Your task to perform on an android device: turn notification dots off Image 0: 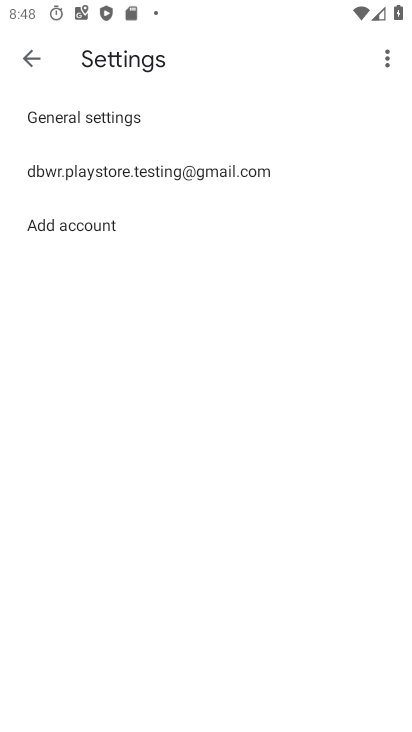
Step 0: press back button
Your task to perform on an android device: turn notification dots off Image 1: 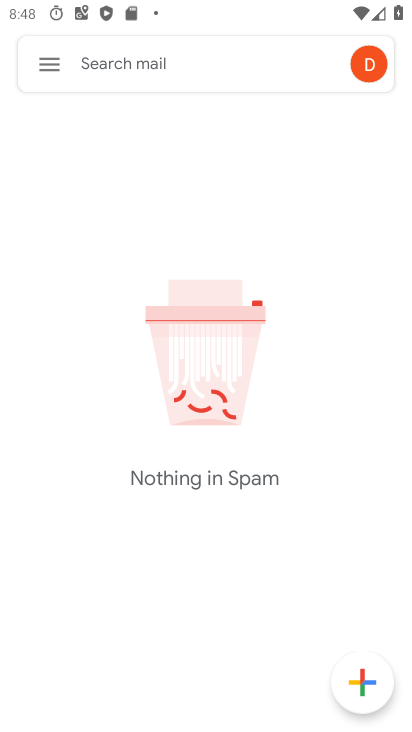
Step 1: click (64, 61)
Your task to perform on an android device: turn notification dots off Image 2: 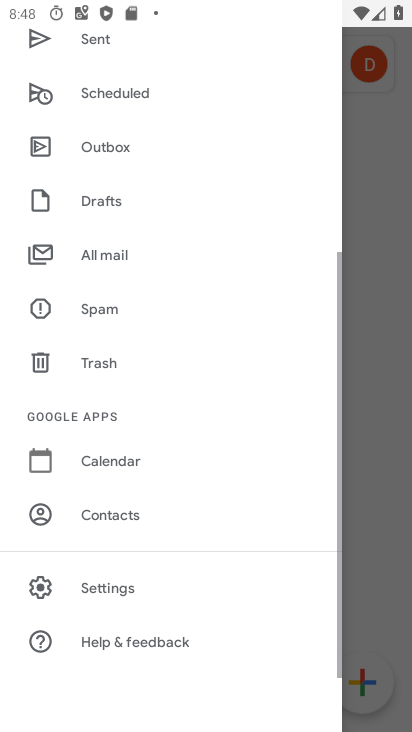
Step 2: press back button
Your task to perform on an android device: turn notification dots off Image 3: 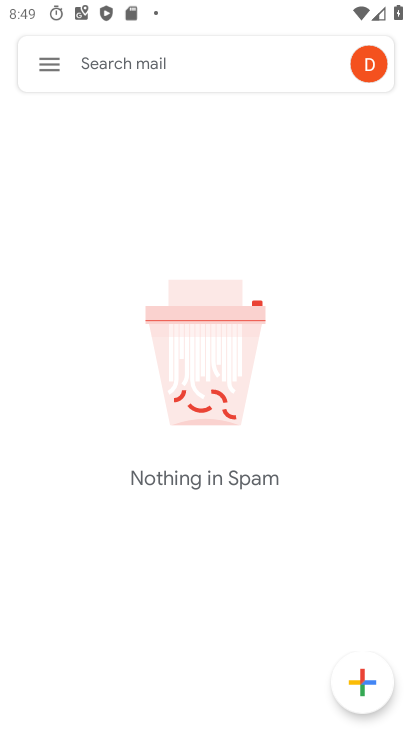
Step 3: press back button
Your task to perform on an android device: turn notification dots off Image 4: 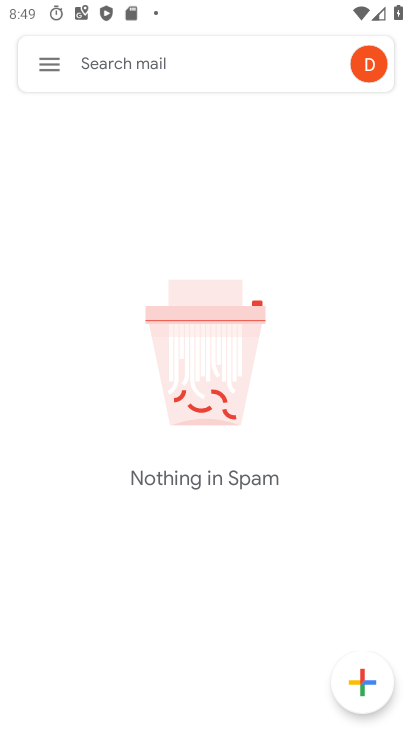
Step 4: press home button
Your task to perform on an android device: turn notification dots off Image 5: 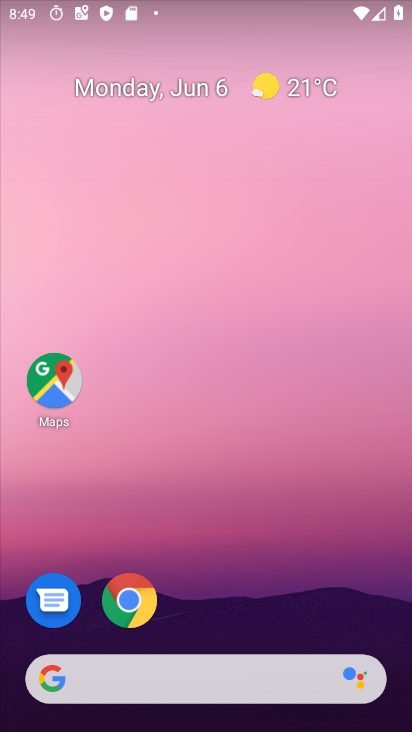
Step 5: drag from (384, 541) to (234, 13)
Your task to perform on an android device: turn notification dots off Image 6: 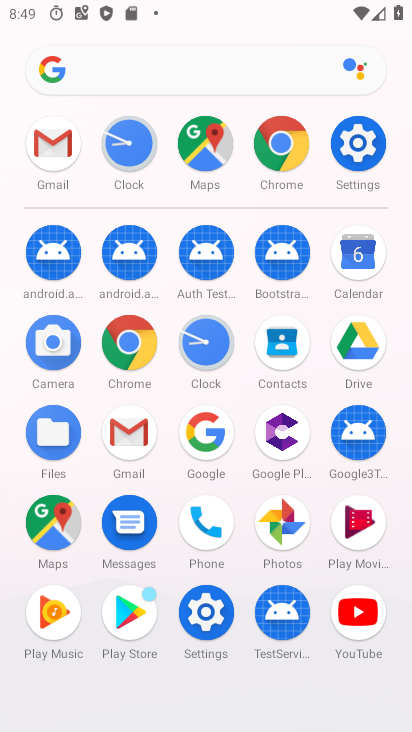
Step 6: click (200, 609)
Your task to perform on an android device: turn notification dots off Image 7: 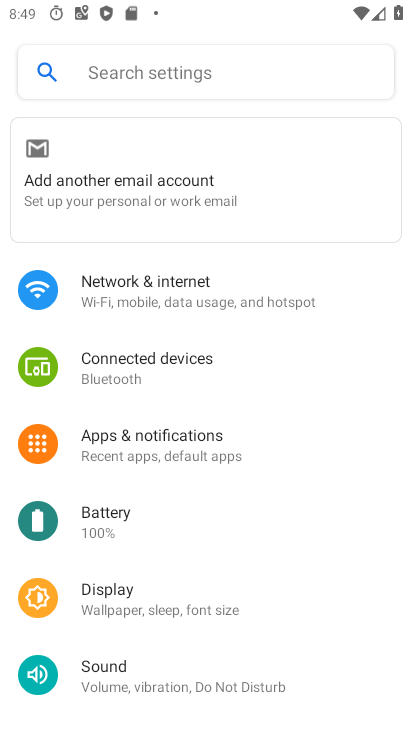
Step 7: drag from (204, 589) to (268, 260)
Your task to perform on an android device: turn notification dots off Image 8: 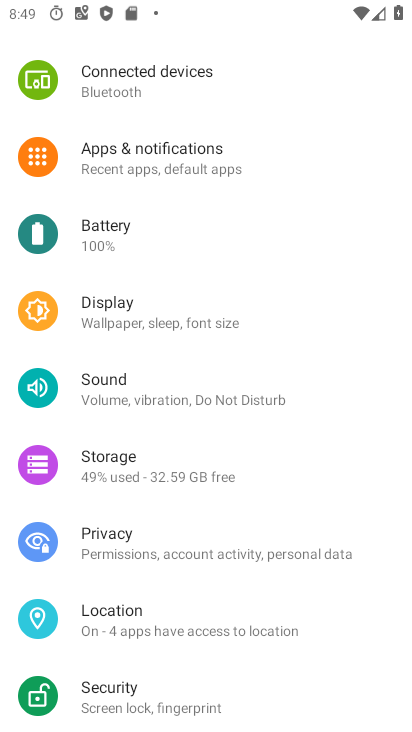
Step 8: drag from (272, 557) to (308, 192)
Your task to perform on an android device: turn notification dots off Image 9: 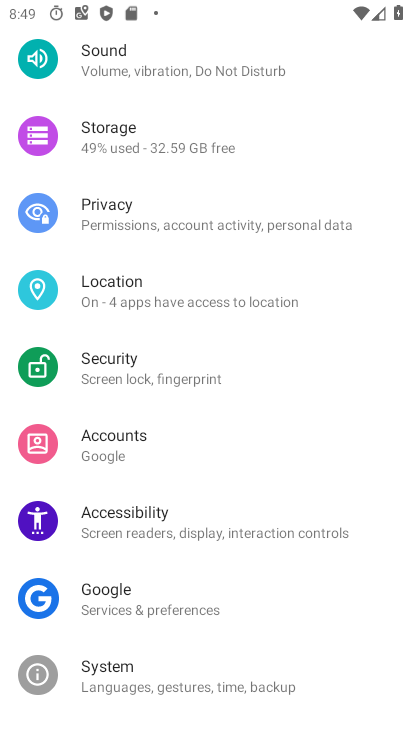
Step 9: drag from (272, 502) to (299, 119)
Your task to perform on an android device: turn notification dots off Image 10: 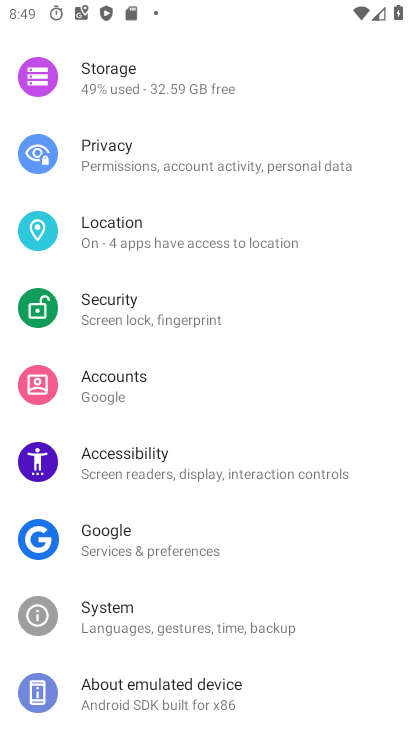
Step 10: drag from (271, 332) to (261, 649)
Your task to perform on an android device: turn notification dots off Image 11: 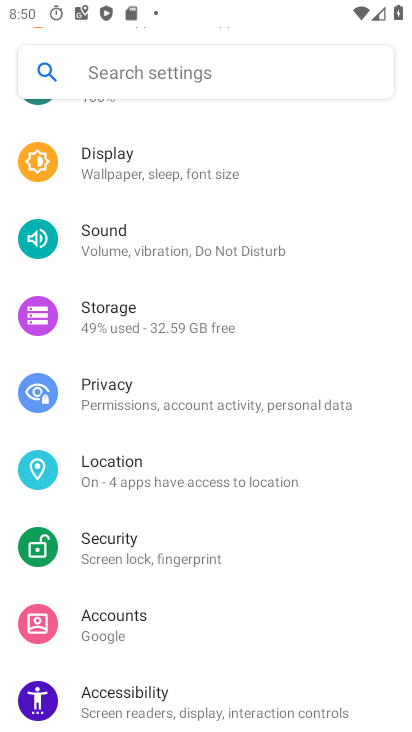
Step 11: drag from (289, 240) to (268, 551)
Your task to perform on an android device: turn notification dots off Image 12: 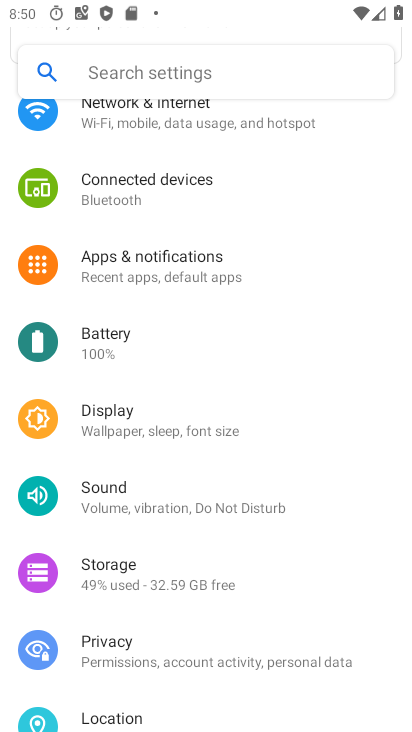
Step 12: click (178, 260)
Your task to perform on an android device: turn notification dots off Image 13: 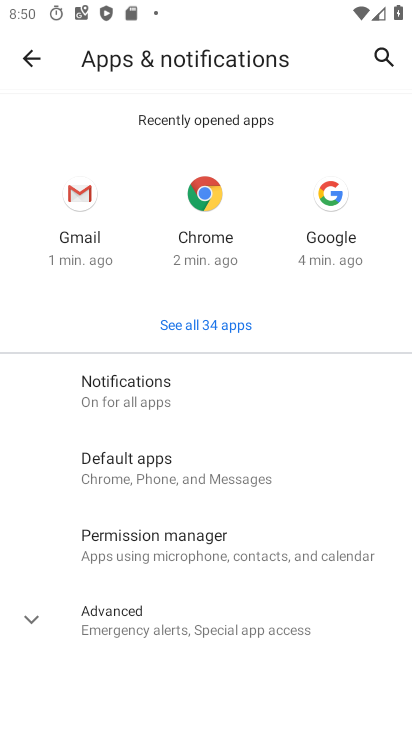
Step 13: click (187, 388)
Your task to perform on an android device: turn notification dots off Image 14: 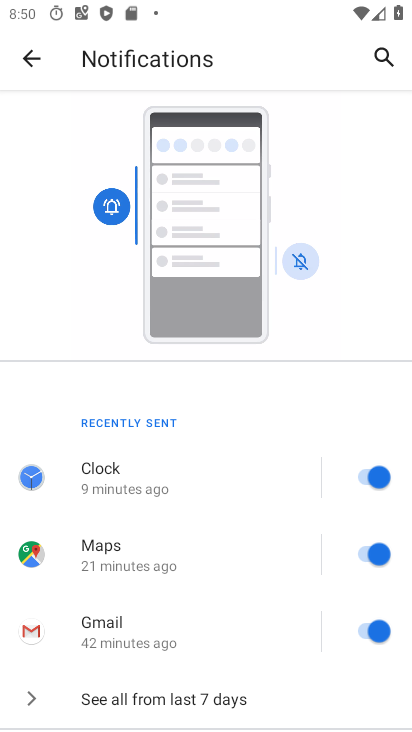
Step 14: drag from (235, 635) to (308, 155)
Your task to perform on an android device: turn notification dots off Image 15: 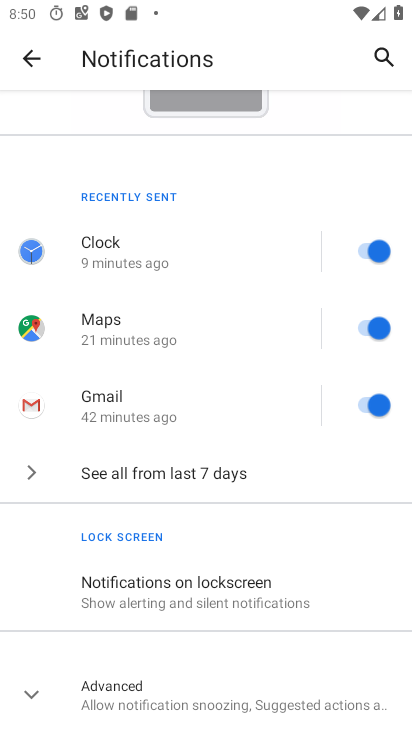
Step 15: click (61, 681)
Your task to perform on an android device: turn notification dots off Image 16: 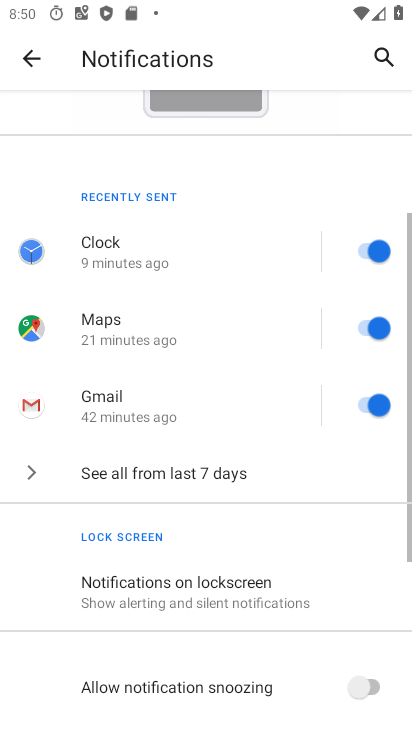
Step 16: drag from (277, 680) to (308, 276)
Your task to perform on an android device: turn notification dots off Image 17: 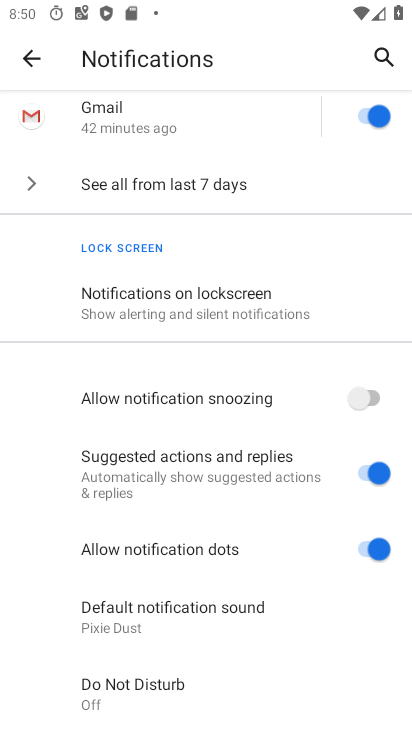
Step 17: click (373, 550)
Your task to perform on an android device: turn notification dots off Image 18: 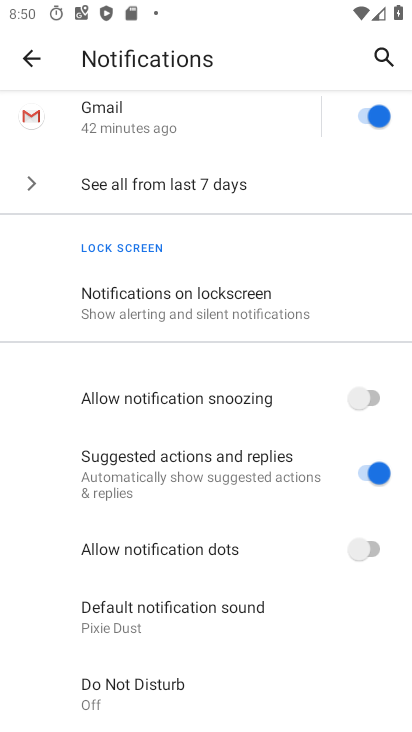
Step 18: task complete